Your task to perform on an android device: clear all cookies in the chrome app Image 0: 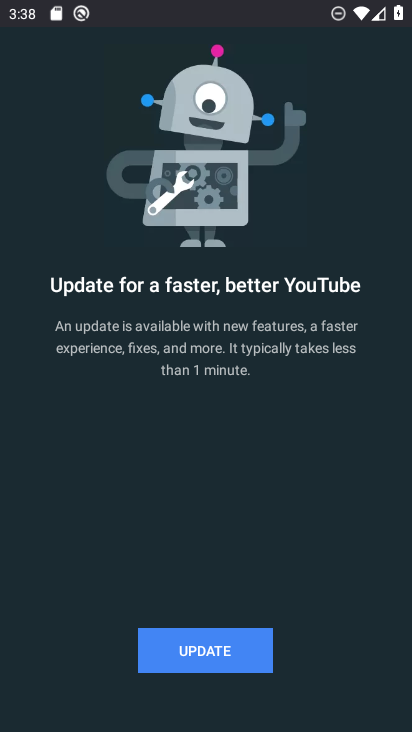
Step 0: press home button
Your task to perform on an android device: clear all cookies in the chrome app Image 1: 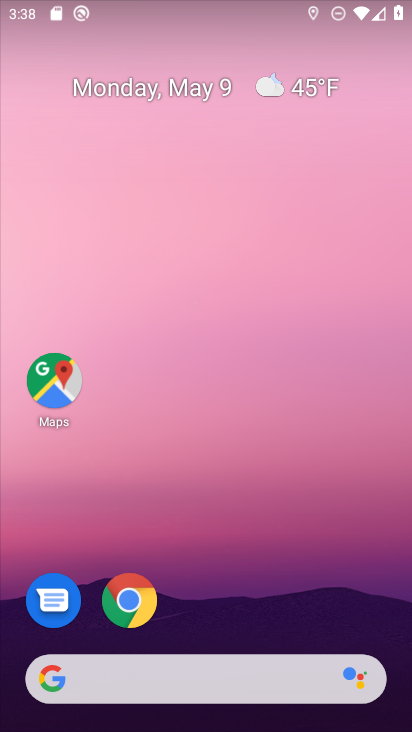
Step 1: click (143, 594)
Your task to perform on an android device: clear all cookies in the chrome app Image 2: 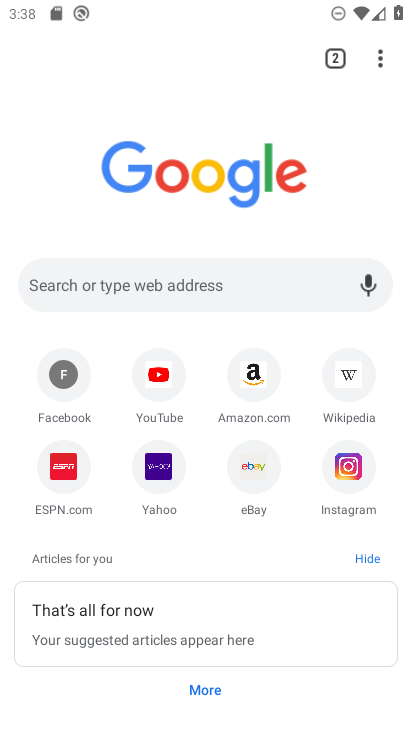
Step 2: click (384, 67)
Your task to perform on an android device: clear all cookies in the chrome app Image 3: 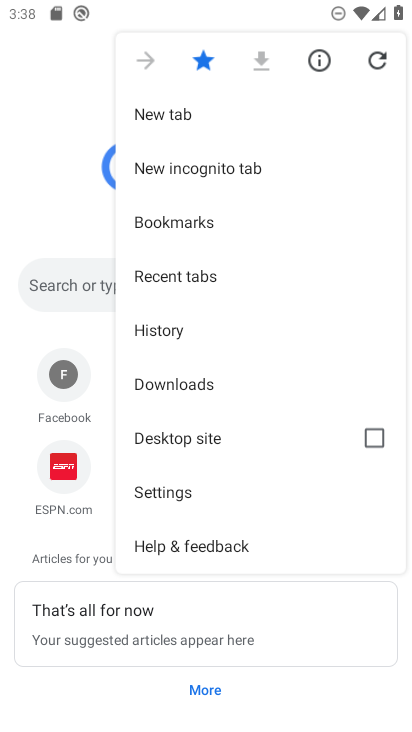
Step 3: click (175, 337)
Your task to perform on an android device: clear all cookies in the chrome app Image 4: 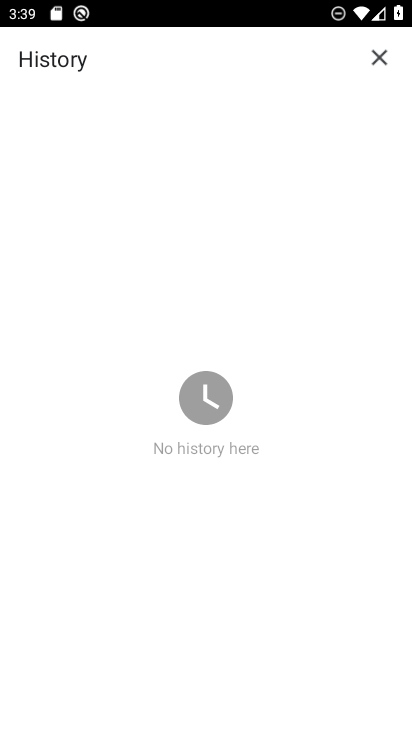
Step 4: task complete